Your task to perform on an android device: open app "Spotify: Music and Podcasts" Image 0: 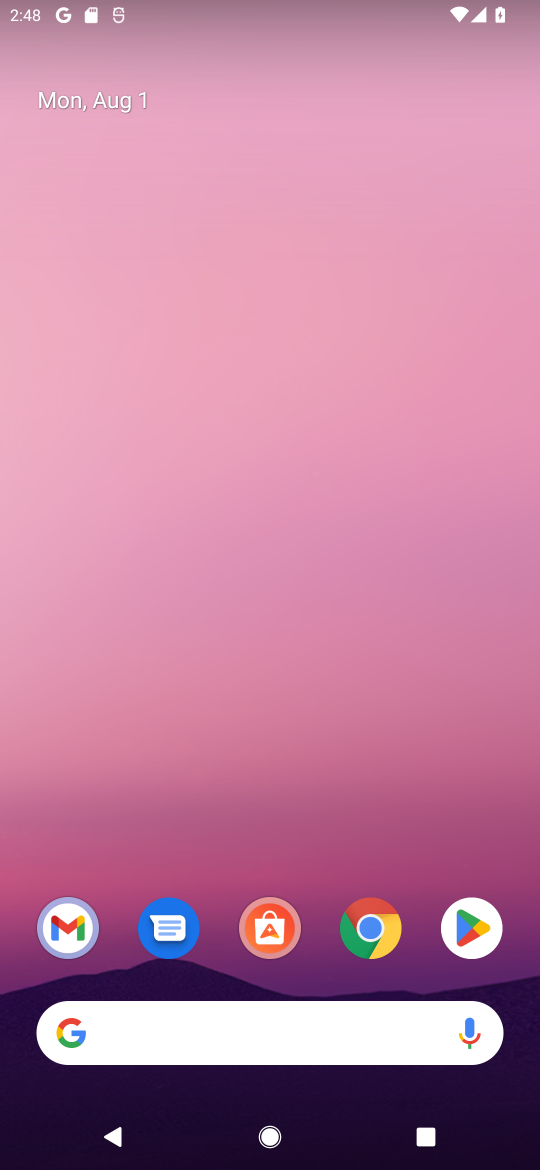
Step 0: click (470, 920)
Your task to perform on an android device: open app "Spotify: Music and Podcasts" Image 1: 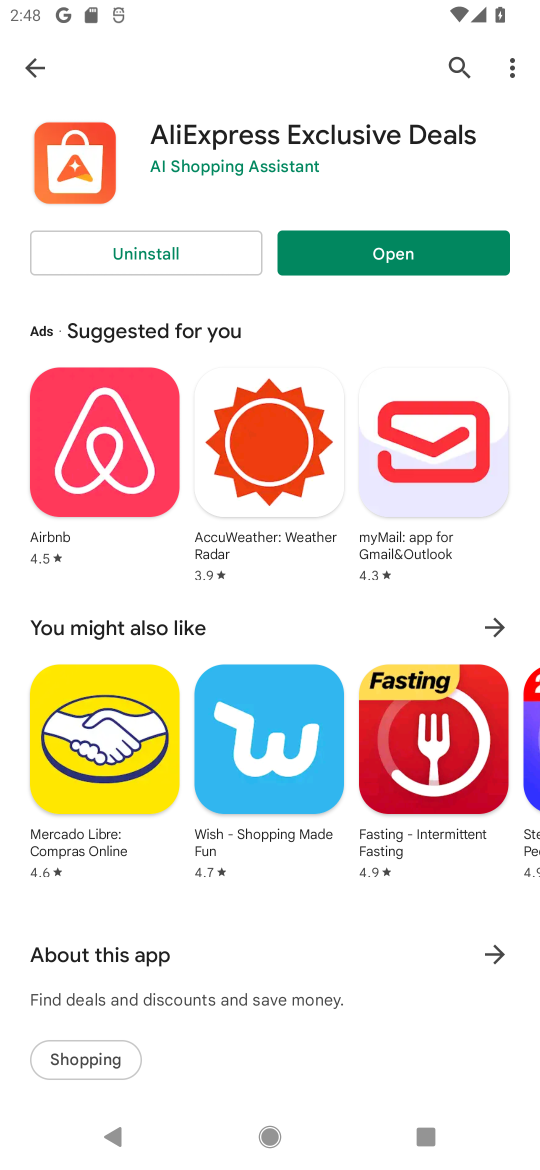
Step 1: click (460, 66)
Your task to perform on an android device: open app "Spotify: Music and Podcasts" Image 2: 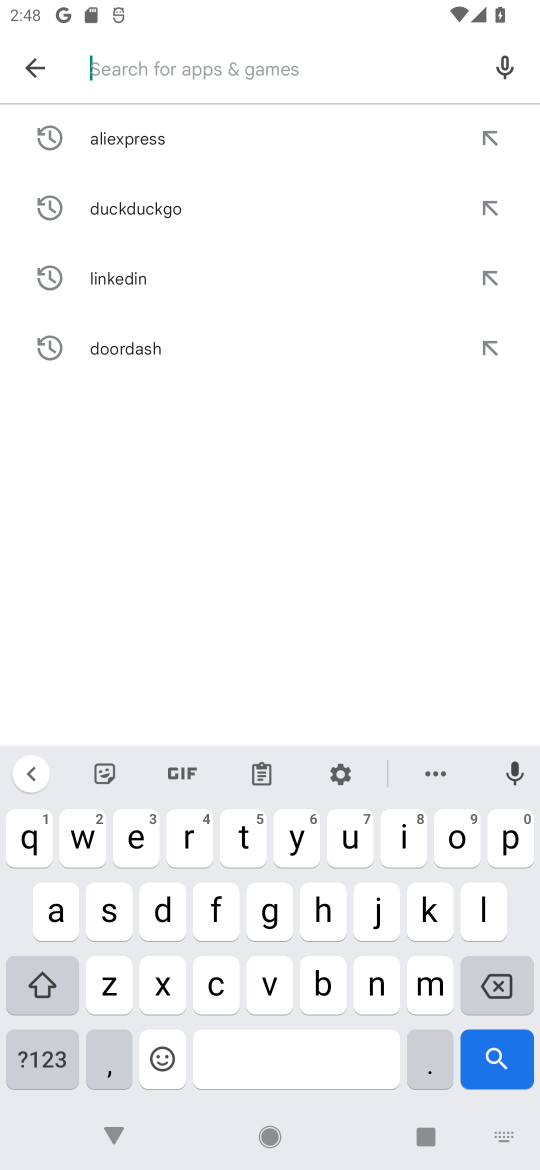
Step 2: click (95, 906)
Your task to perform on an android device: open app "Spotify: Music and Podcasts" Image 3: 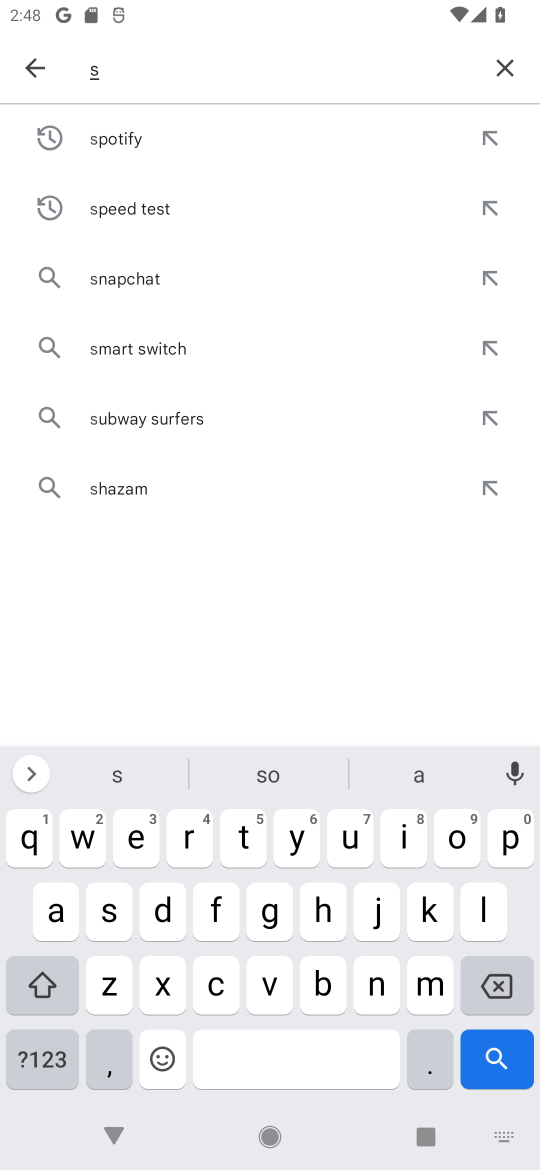
Step 3: click (151, 145)
Your task to perform on an android device: open app "Spotify: Music and Podcasts" Image 4: 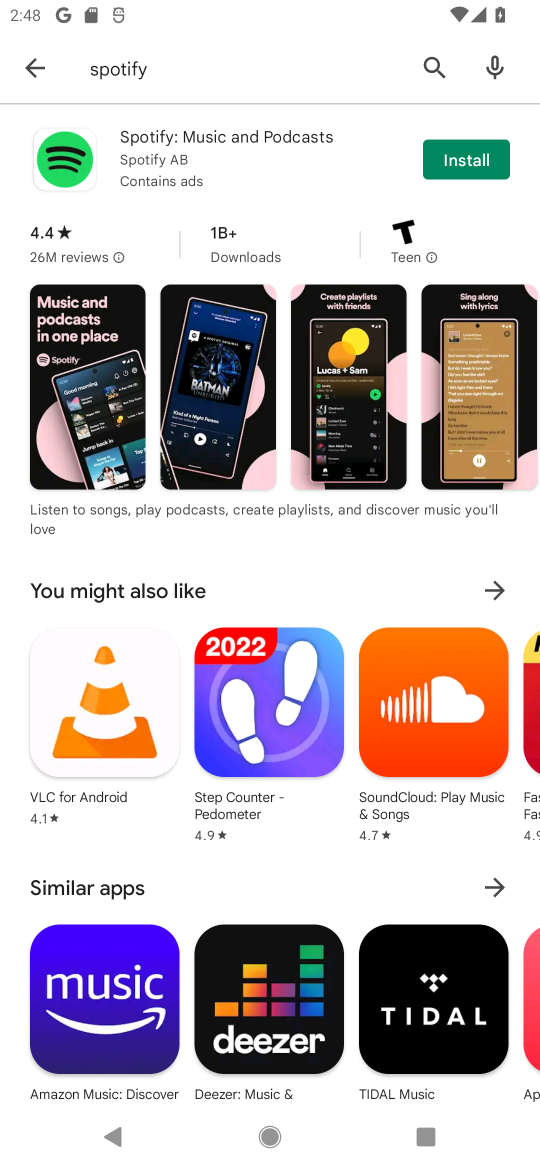
Step 4: click (463, 163)
Your task to perform on an android device: open app "Spotify: Music and Podcasts" Image 5: 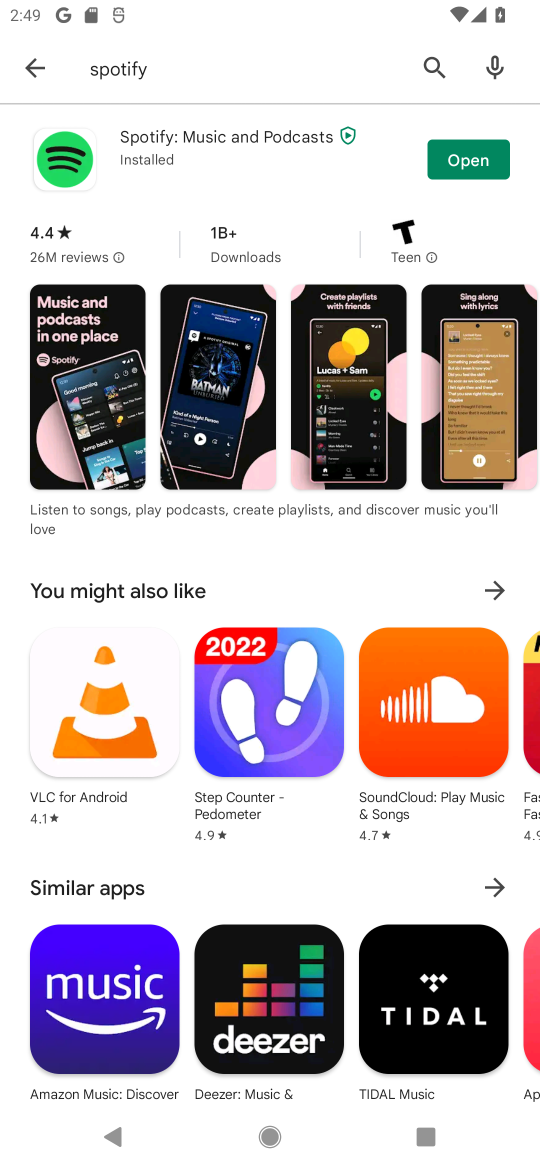
Step 5: click (463, 163)
Your task to perform on an android device: open app "Spotify: Music and Podcasts" Image 6: 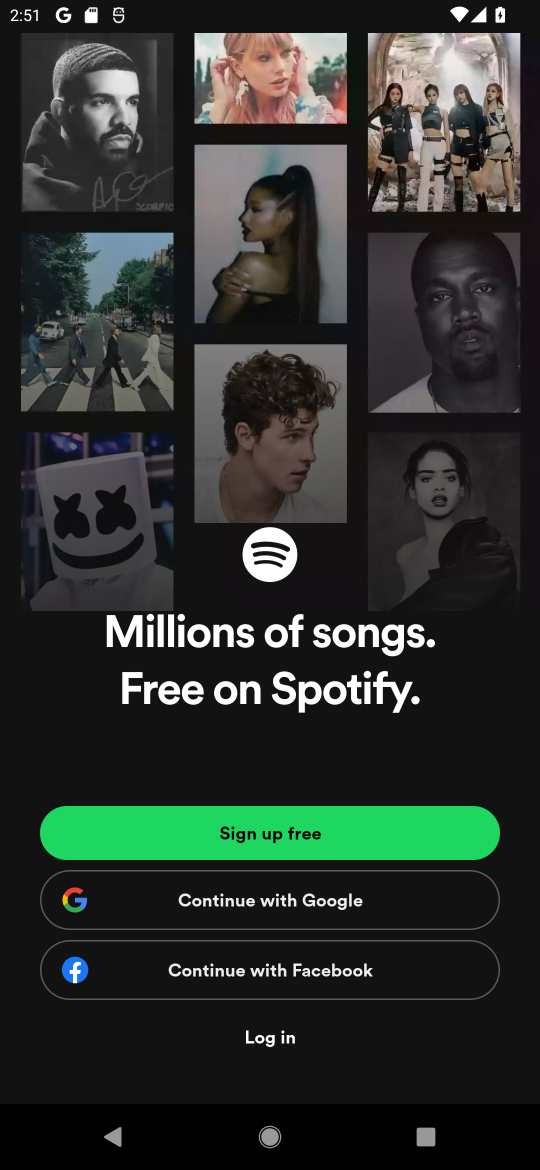
Step 6: task complete